Your task to perform on an android device: Show me productivity apps on the Play Store Image 0: 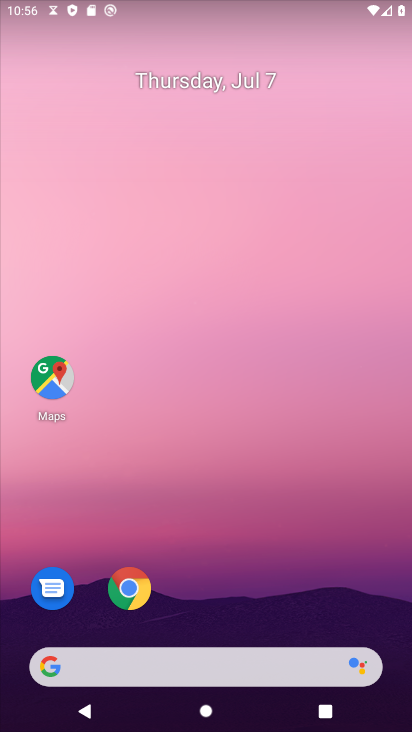
Step 0: click (401, 15)
Your task to perform on an android device: Show me productivity apps on the Play Store Image 1: 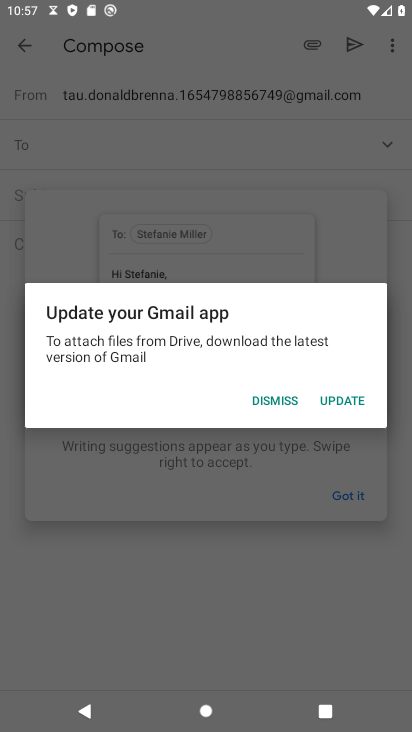
Step 1: drag from (238, 615) to (279, 163)
Your task to perform on an android device: Show me productivity apps on the Play Store Image 2: 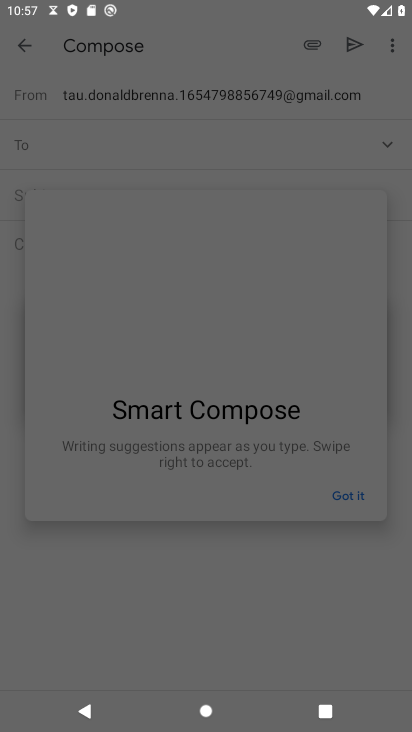
Step 2: click (274, 397)
Your task to perform on an android device: Show me productivity apps on the Play Store Image 3: 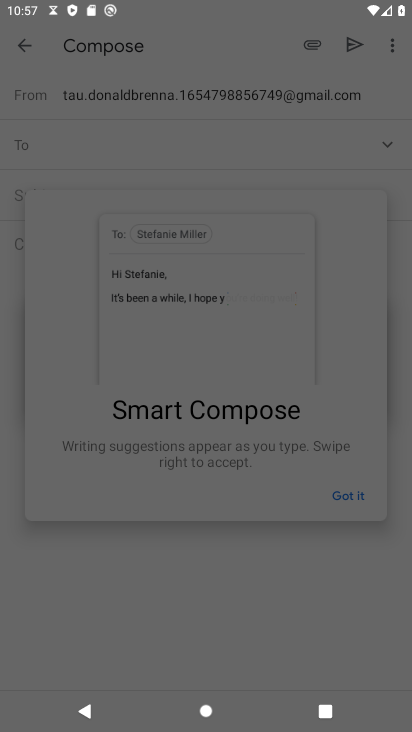
Step 3: press back button
Your task to perform on an android device: Show me productivity apps on the Play Store Image 4: 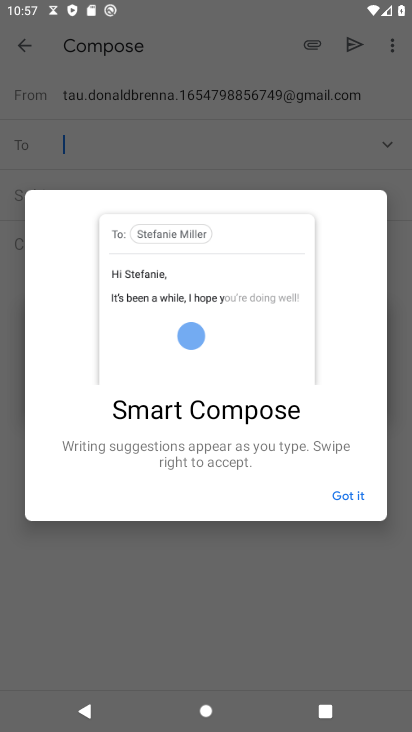
Step 4: click (338, 496)
Your task to perform on an android device: Show me productivity apps on the Play Store Image 5: 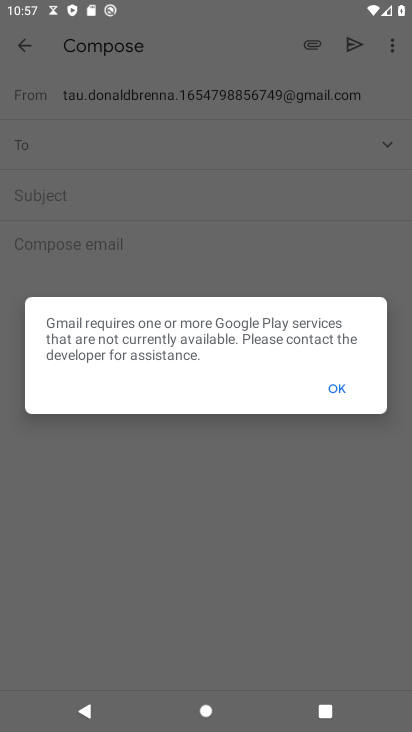
Step 5: click (315, 396)
Your task to perform on an android device: Show me productivity apps on the Play Store Image 6: 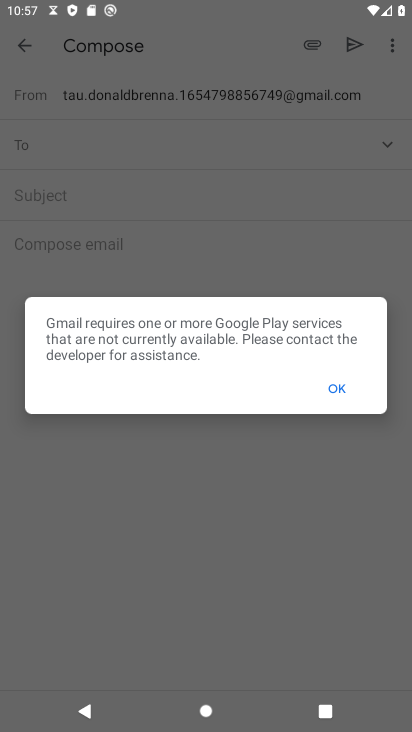
Step 6: click (324, 393)
Your task to perform on an android device: Show me productivity apps on the Play Store Image 7: 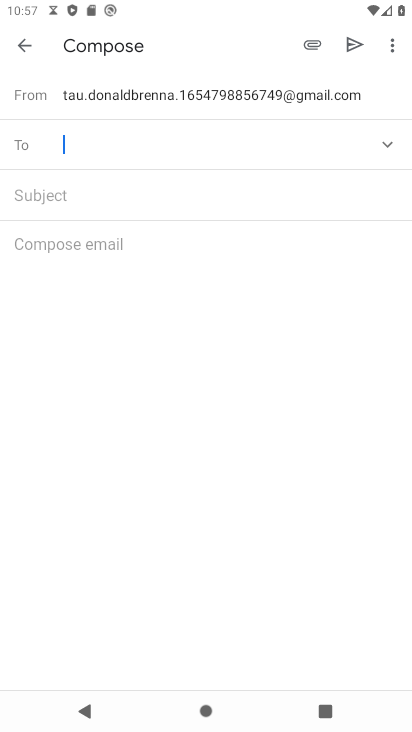
Step 7: drag from (275, 511) to (322, 164)
Your task to perform on an android device: Show me productivity apps on the Play Store Image 8: 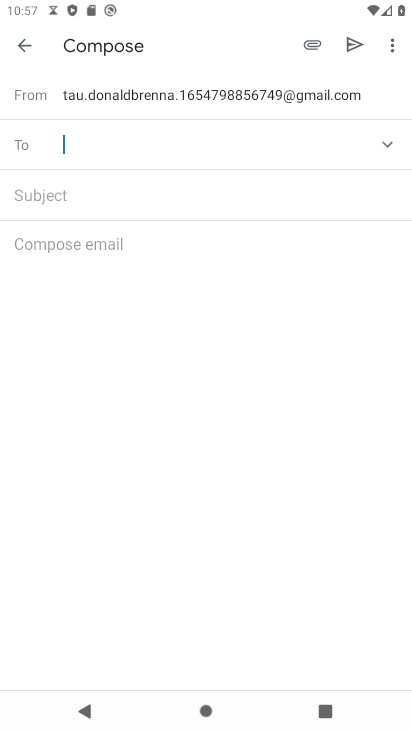
Step 8: press home button
Your task to perform on an android device: Show me productivity apps on the Play Store Image 9: 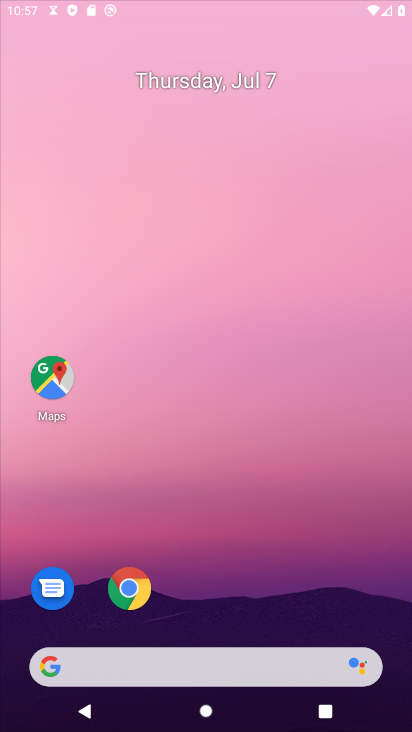
Step 9: drag from (153, 515) to (211, 84)
Your task to perform on an android device: Show me productivity apps on the Play Store Image 10: 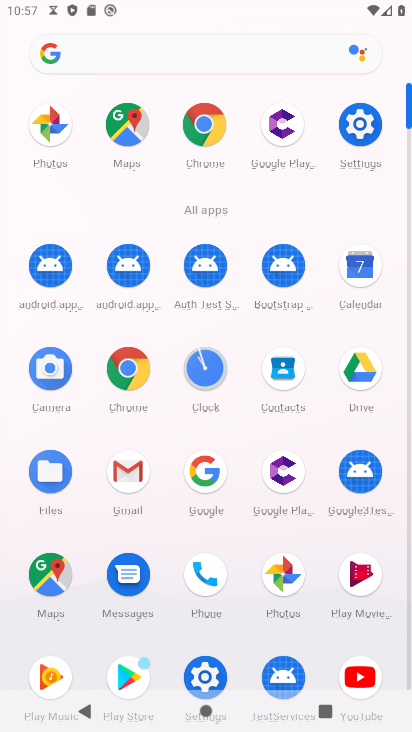
Step 10: click (127, 666)
Your task to perform on an android device: Show me productivity apps on the Play Store Image 11: 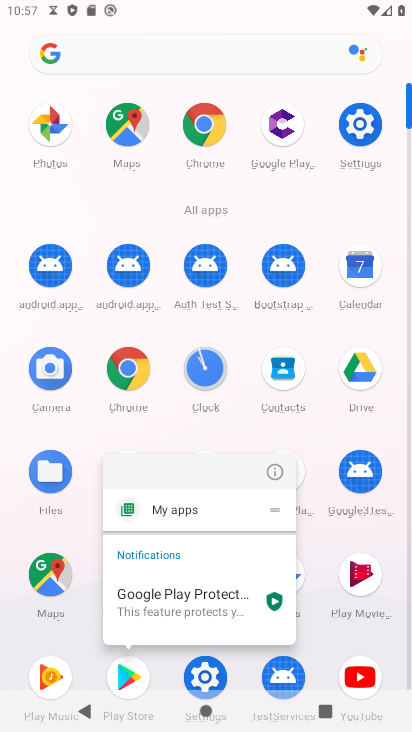
Step 11: click (271, 460)
Your task to perform on an android device: Show me productivity apps on the Play Store Image 12: 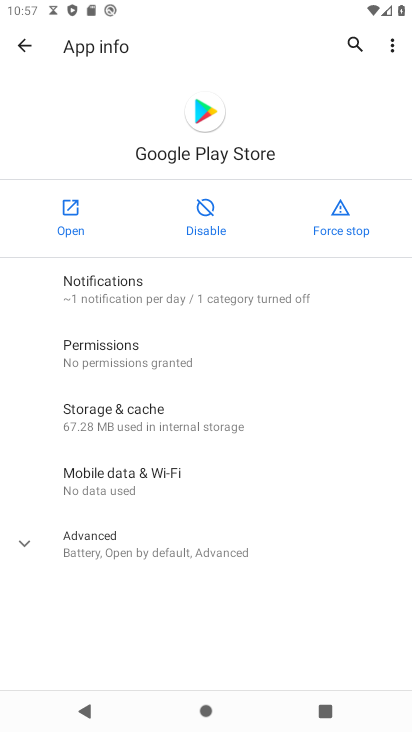
Step 12: click (78, 214)
Your task to perform on an android device: Show me productivity apps on the Play Store Image 13: 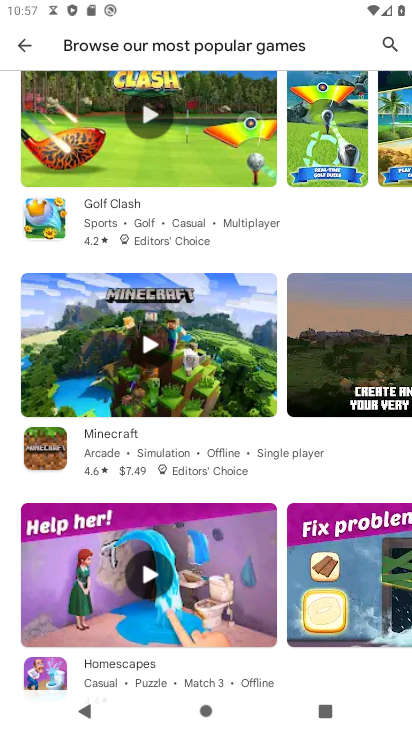
Step 13: task complete